Your task to perform on an android device: Open the stopwatch Image 0: 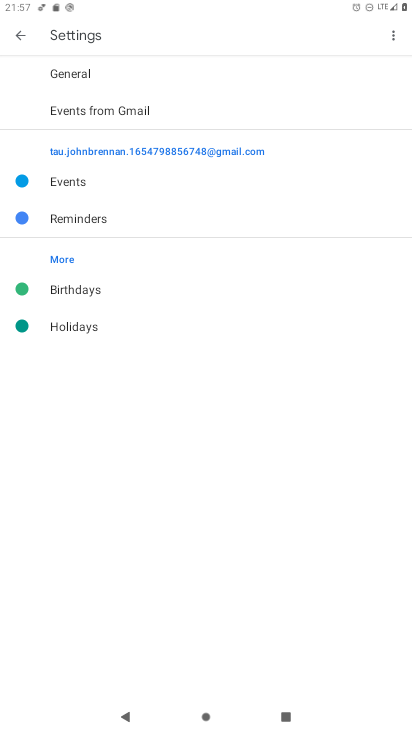
Step 0: press home button
Your task to perform on an android device: Open the stopwatch Image 1: 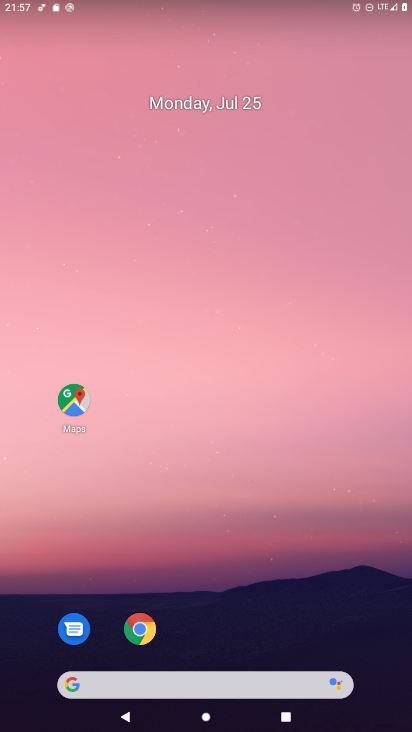
Step 1: drag from (190, 677) to (259, 169)
Your task to perform on an android device: Open the stopwatch Image 2: 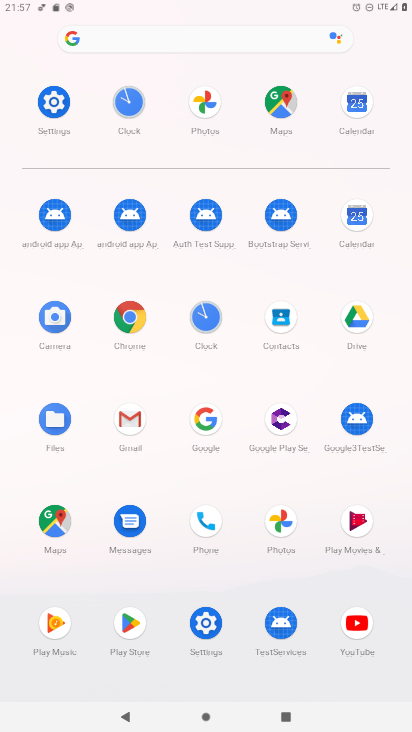
Step 2: click (128, 103)
Your task to perform on an android device: Open the stopwatch Image 3: 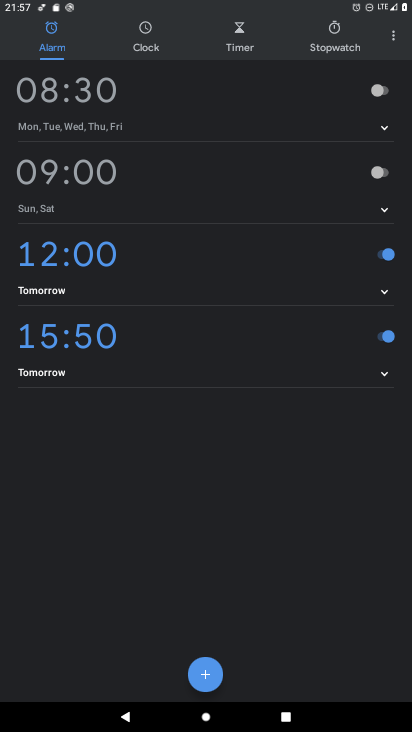
Step 3: click (334, 30)
Your task to perform on an android device: Open the stopwatch Image 4: 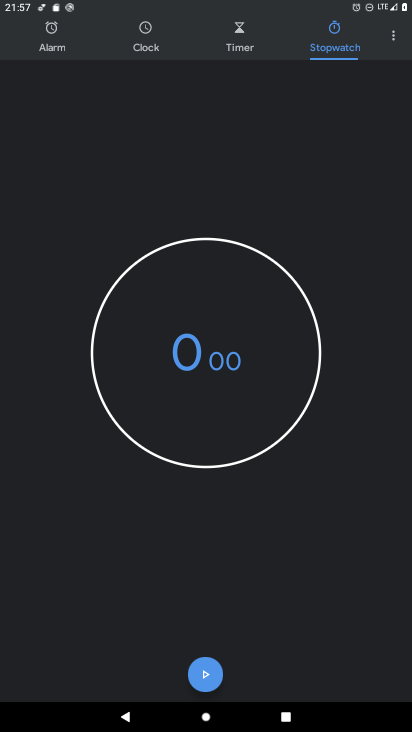
Step 4: task complete